Your task to perform on an android device: Go to CNN.com Image 0: 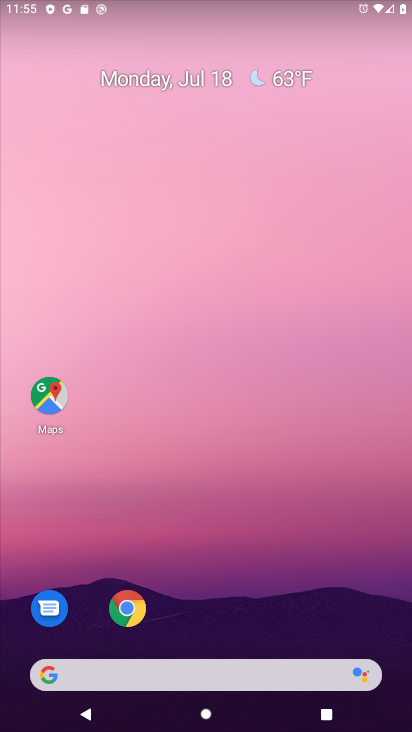
Step 0: click (122, 613)
Your task to perform on an android device: Go to CNN.com Image 1: 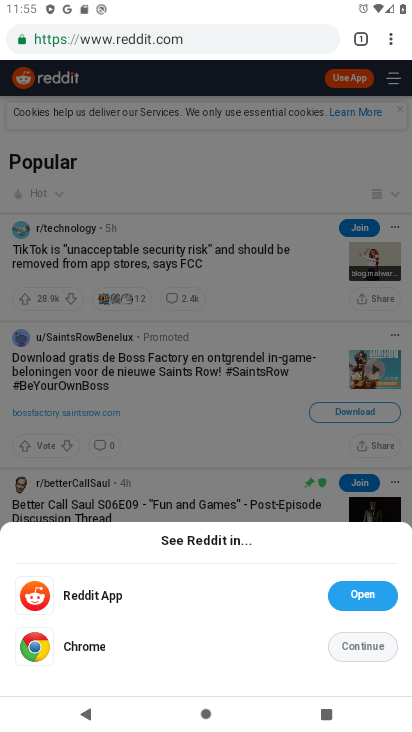
Step 1: click (187, 37)
Your task to perform on an android device: Go to CNN.com Image 2: 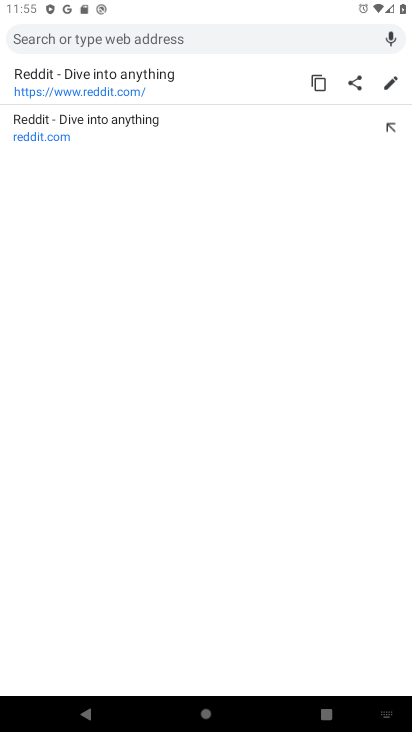
Step 2: type "CNN.com"
Your task to perform on an android device: Go to CNN.com Image 3: 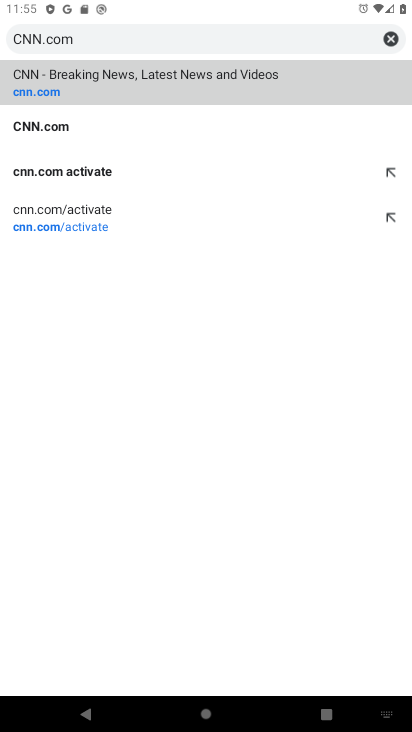
Step 3: click (38, 75)
Your task to perform on an android device: Go to CNN.com Image 4: 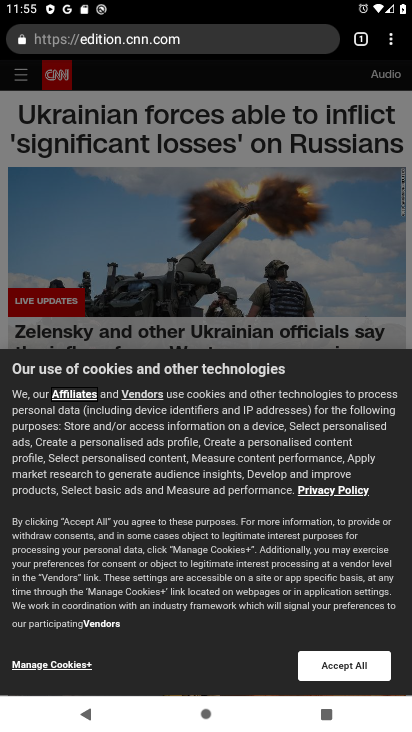
Step 4: task complete